Your task to perform on an android device: Go to battery settings Image 0: 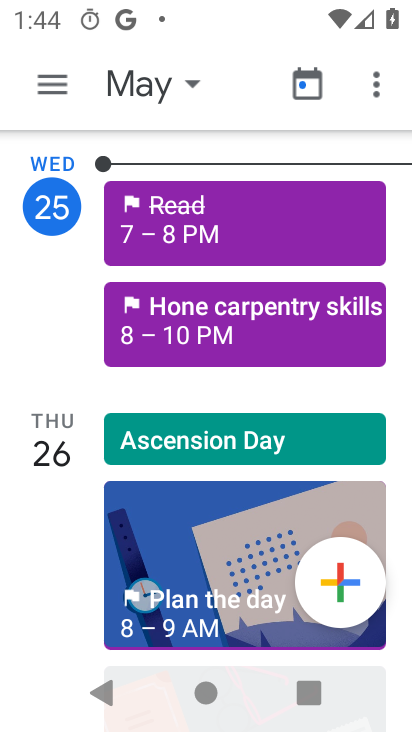
Step 0: press home button
Your task to perform on an android device: Go to battery settings Image 1: 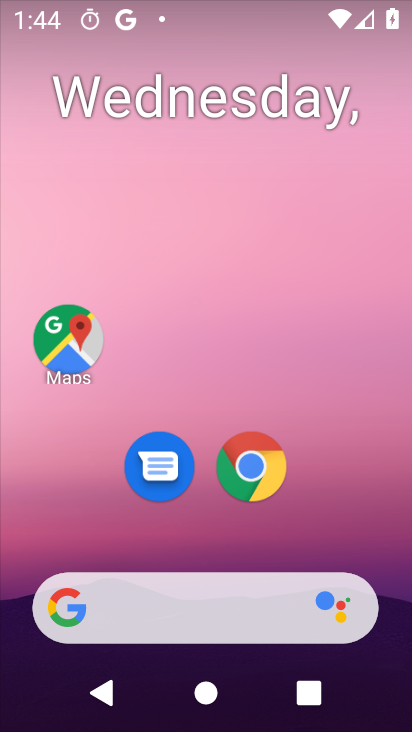
Step 1: drag from (309, 504) to (278, 67)
Your task to perform on an android device: Go to battery settings Image 2: 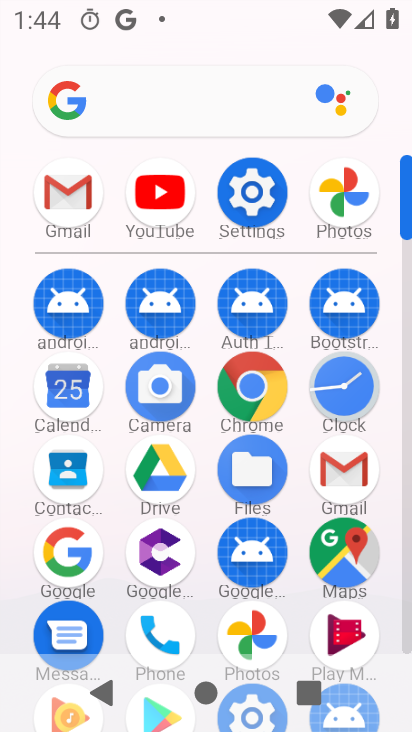
Step 2: click (259, 222)
Your task to perform on an android device: Go to battery settings Image 3: 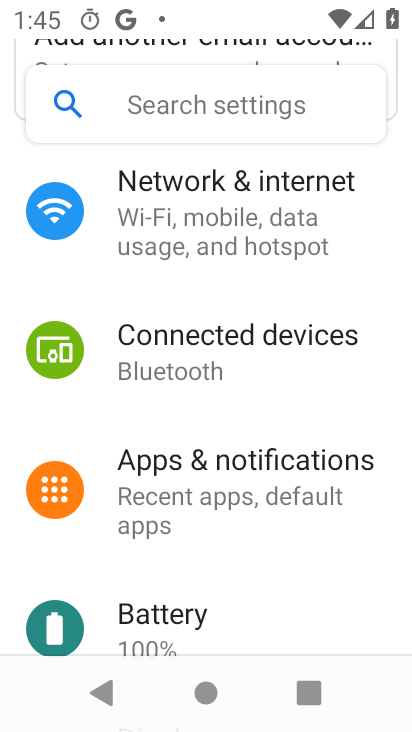
Step 3: click (200, 600)
Your task to perform on an android device: Go to battery settings Image 4: 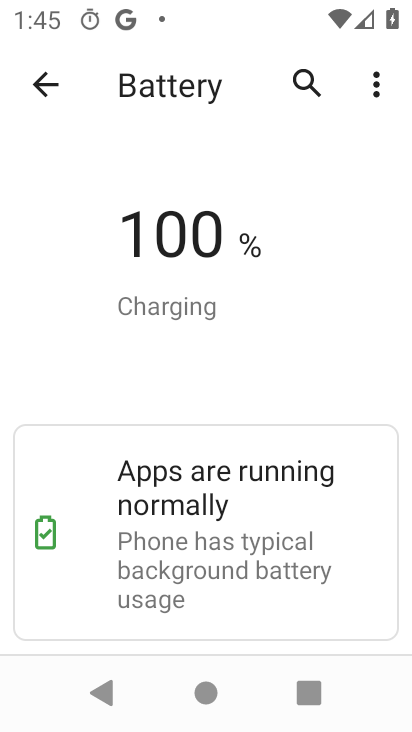
Step 4: task complete